Your task to perform on an android device: turn on translation in the chrome app Image 0: 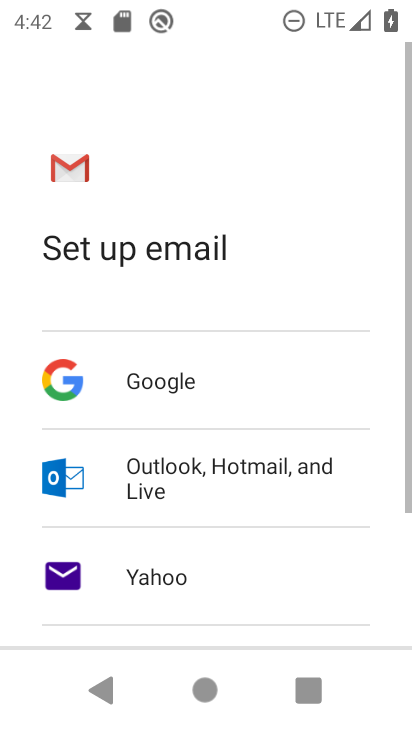
Step 0: press home button
Your task to perform on an android device: turn on translation in the chrome app Image 1: 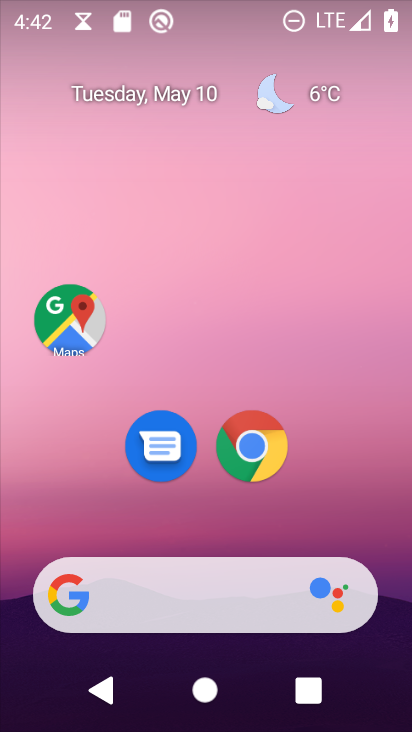
Step 1: click (258, 456)
Your task to perform on an android device: turn on translation in the chrome app Image 2: 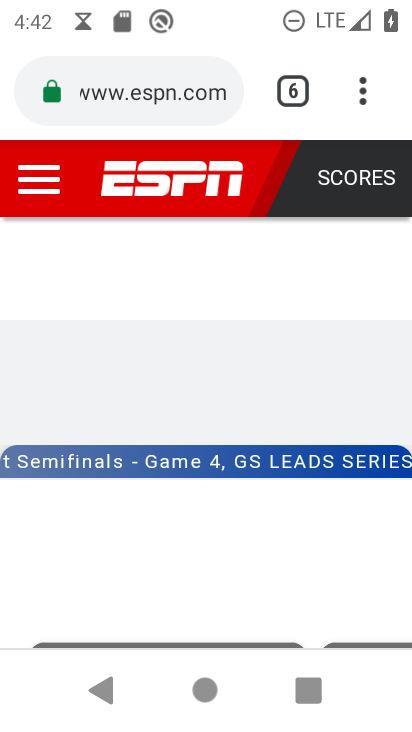
Step 2: click (364, 75)
Your task to perform on an android device: turn on translation in the chrome app Image 3: 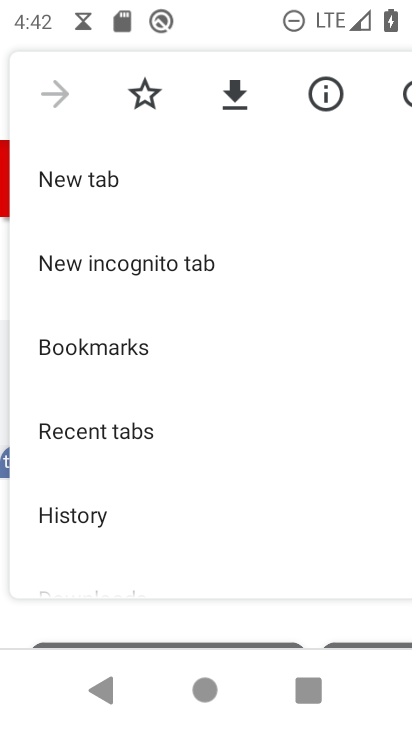
Step 3: drag from (204, 488) to (193, 157)
Your task to perform on an android device: turn on translation in the chrome app Image 4: 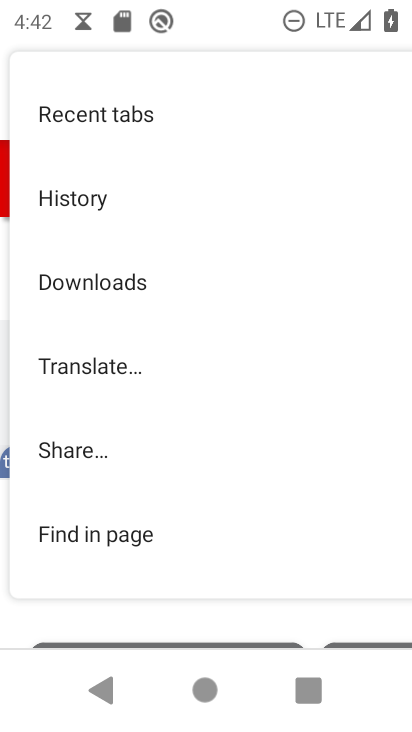
Step 4: drag from (206, 476) to (201, 214)
Your task to perform on an android device: turn on translation in the chrome app Image 5: 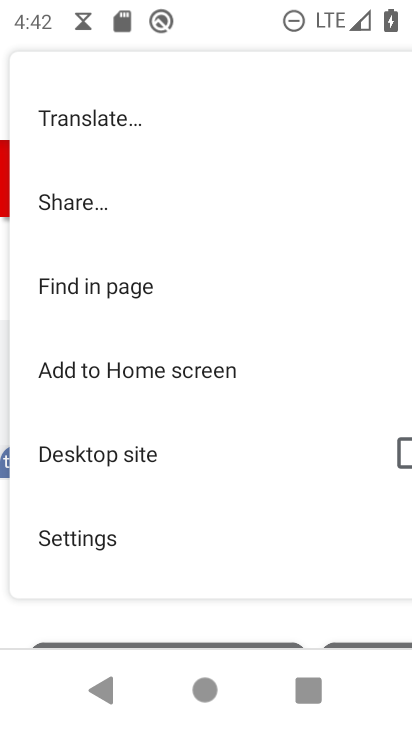
Step 5: click (104, 545)
Your task to perform on an android device: turn on translation in the chrome app Image 6: 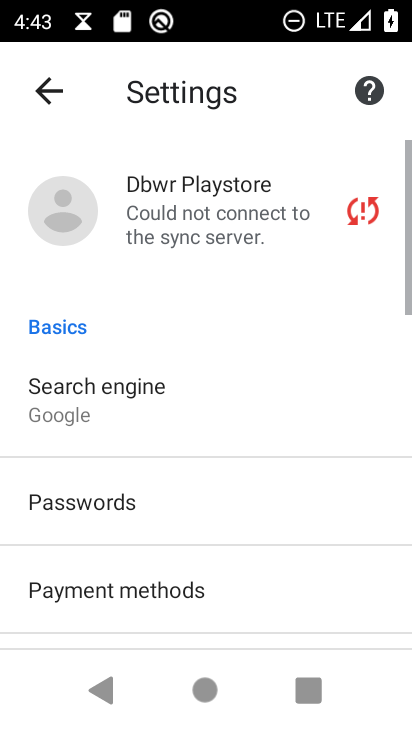
Step 6: drag from (174, 542) to (181, 192)
Your task to perform on an android device: turn on translation in the chrome app Image 7: 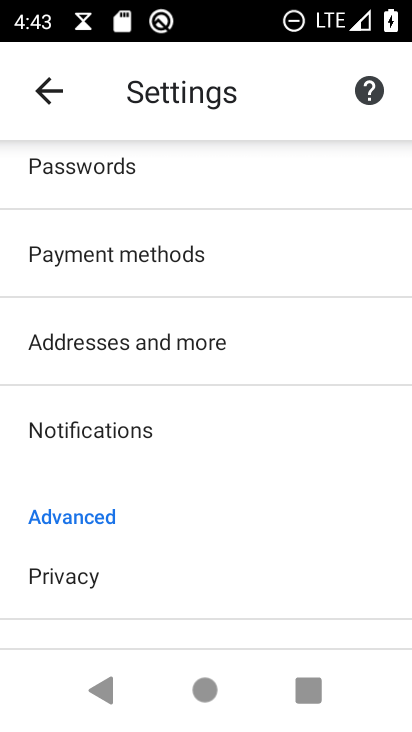
Step 7: drag from (179, 534) to (186, 273)
Your task to perform on an android device: turn on translation in the chrome app Image 8: 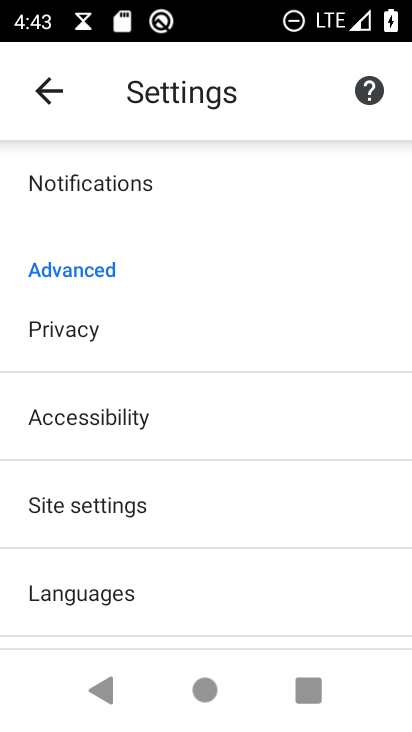
Step 8: click (113, 602)
Your task to perform on an android device: turn on translation in the chrome app Image 9: 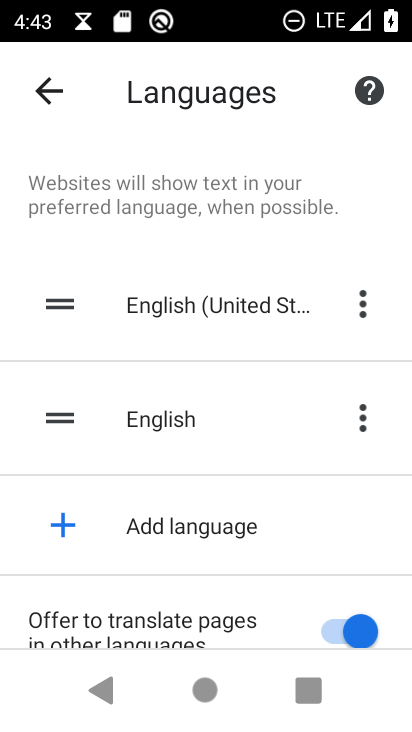
Step 9: click (351, 625)
Your task to perform on an android device: turn on translation in the chrome app Image 10: 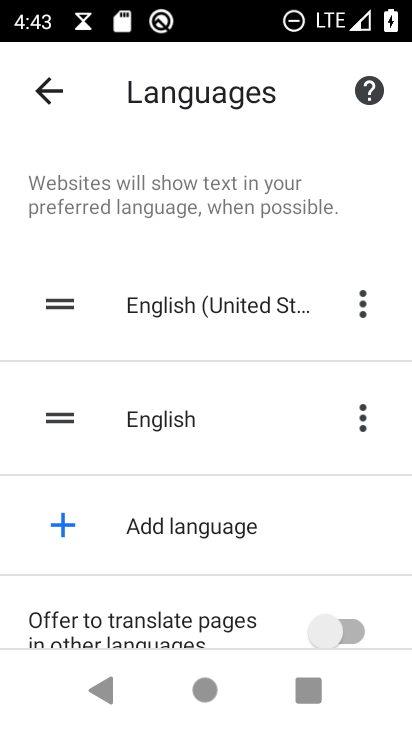
Step 10: task complete